Your task to perform on an android device: toggle airplane mode Image 0: 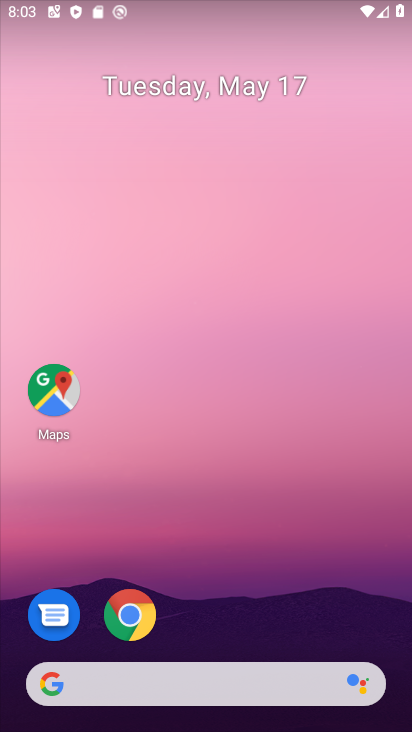
Step 0: drag from (228, 601) to (244, 220)
Your task to perform on an android device: toggle airplane mode Image 1: 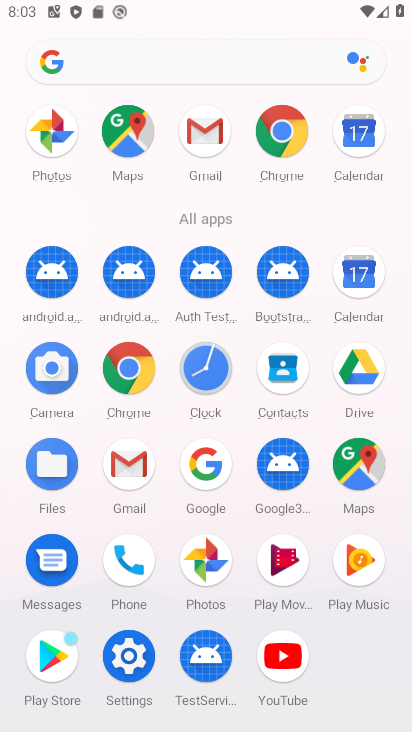
Step 1: click (124, 660)
Your task to perform on an android device: toggle airplane mode Image 2: 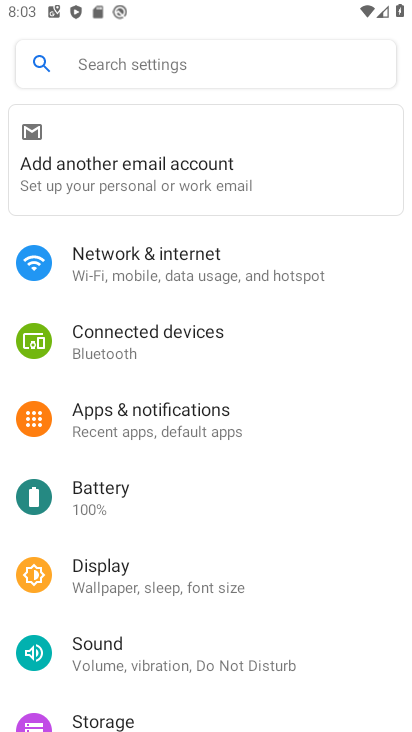
Step 2: click (128, 257)
Your task to perform on an android device: toggle airplane mode Image 3: 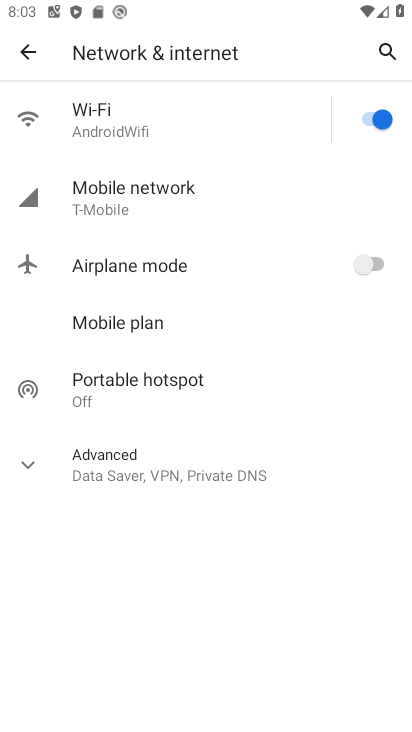
Step 3: click (368, 260)
Your task to perform on an android device: toggle airplane mode Image 4: 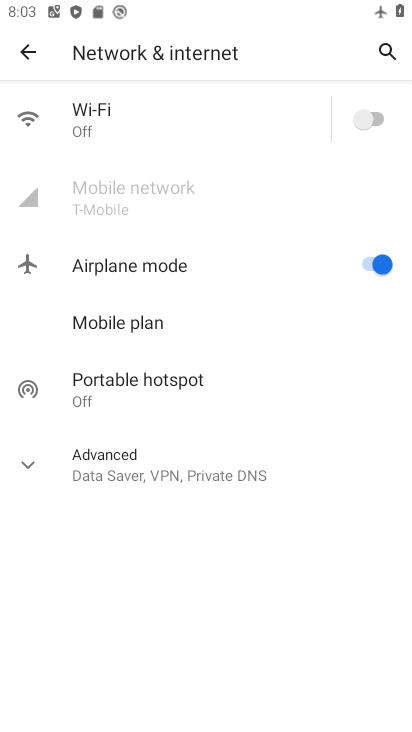
Step 4: task complete